Your task to perform on an android device: Is it going to rain this weekend? Image 0: 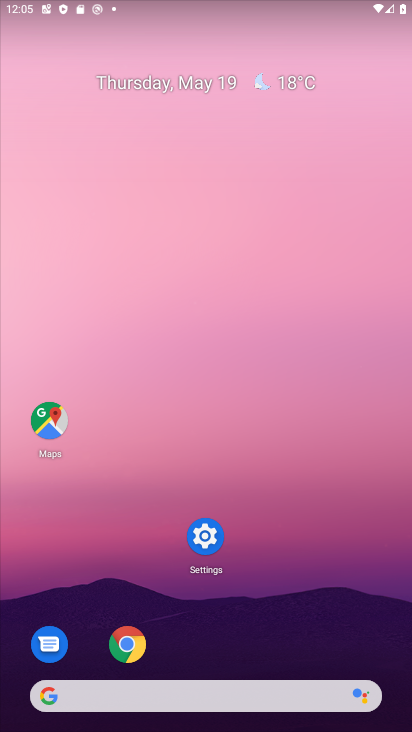
Step 0: drag from (341, 597) to (272, 104)
Your task to perform on an android device: Is it going to rain this weekend? Image 1: 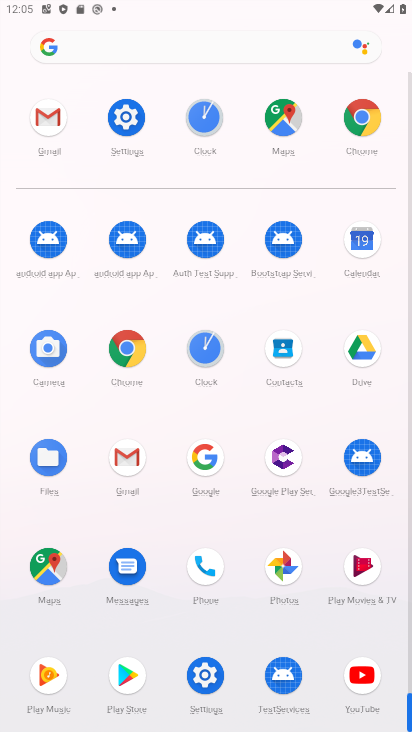
Step 1: click (354, 248)
Your task to perform on an android device: Is it going to rain this weekend? Image 2: 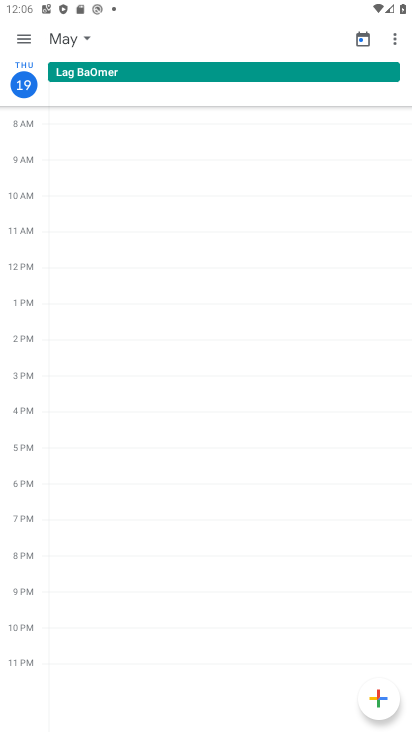
Step 2: press home button
Your task to perform on an android device: Is it going to rain this weekend? Image 3: 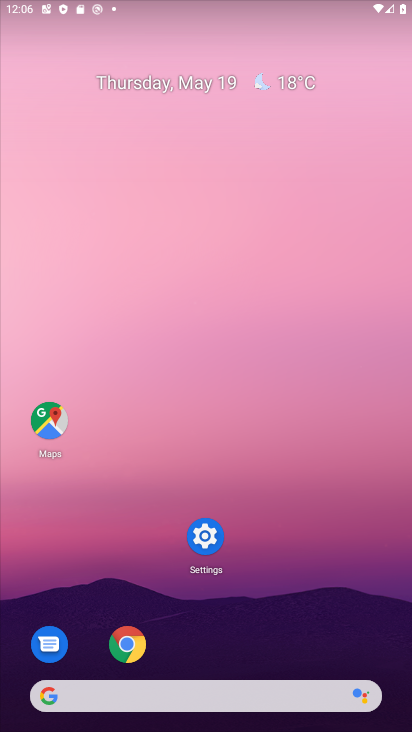
Step 3: click (275, 82)
Your task to perform on an android device: Is it going to rain this weekend? Image 4: 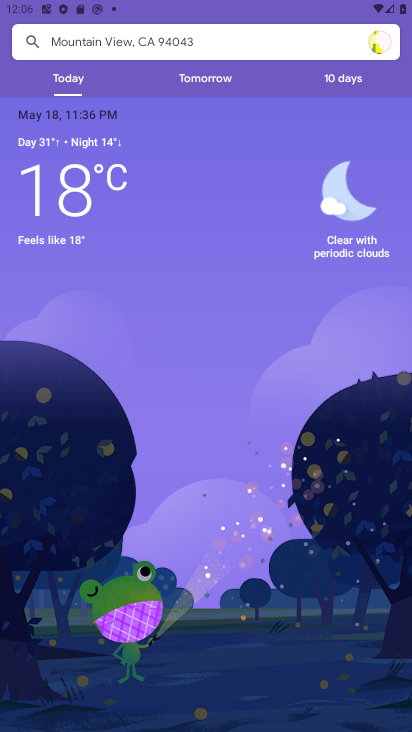
Step 4: click (348, 83)
Your task to perform on an android device: Is it going to rain this weekend? Image 5: 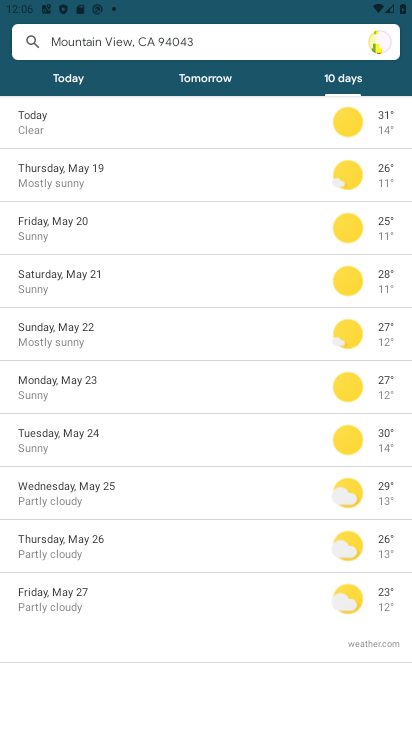
Step 5: task complete